Your task to perform on an android device: Open accessibility settings Image 0: 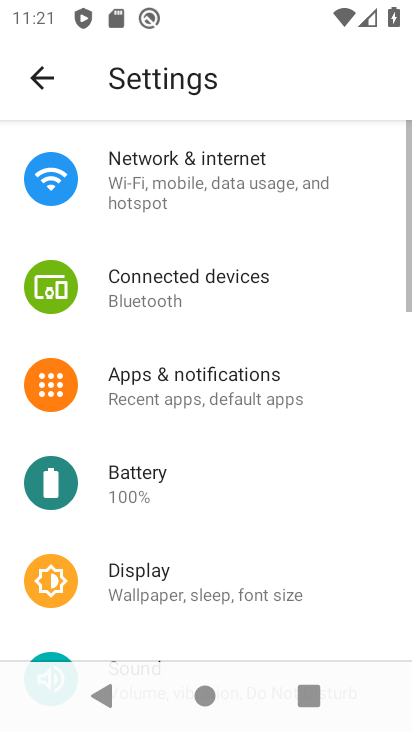
Step 0: press home button
Your task to perform on an android device: Open accessibility settings Image 1: 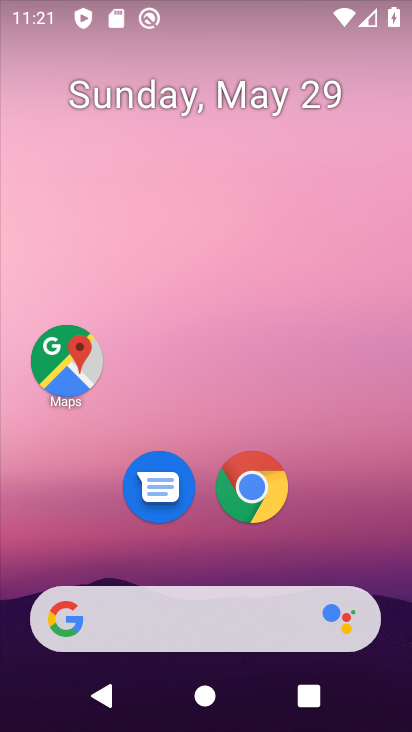
Step 1: drag from (225, 719) to (226, 132)
Your task to perform on an android device: Open accessibility settings Image 2: 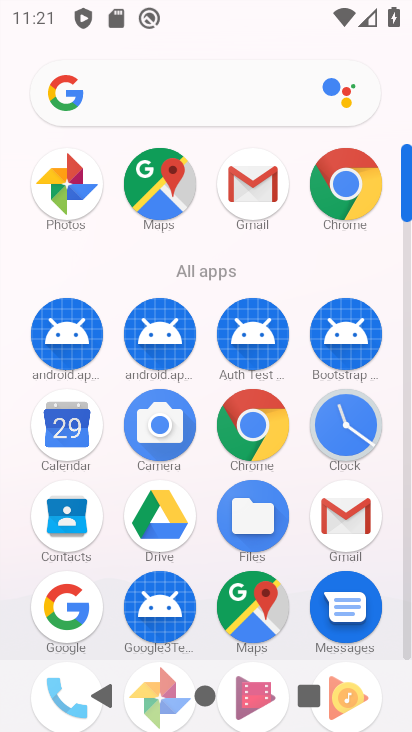
Step 2: drag from (202, 647) to (204, 264)
Your task to perform on an android device: Open accessibility settings Image 3: 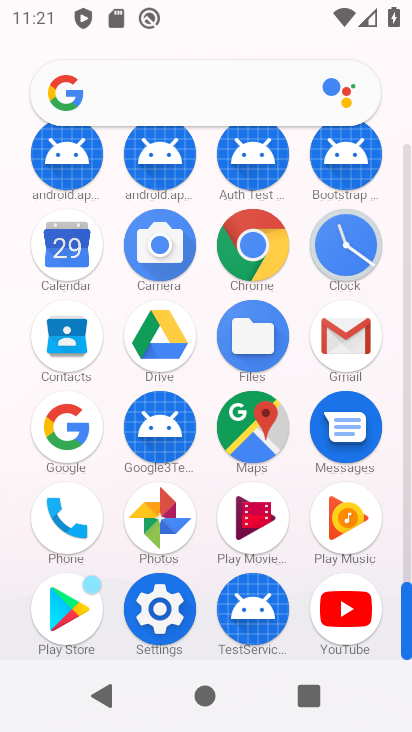
Step 3: click (170, 604)
Your task to perform on an android device: Open accessibility settings Image 4: 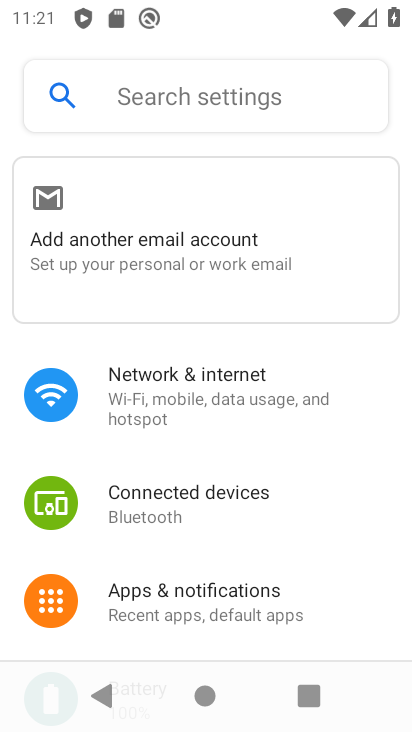
Step 4: drag from (161, 642) to (158, 261)
Your task to perform on an android device: Open accessibility settings Image 5: 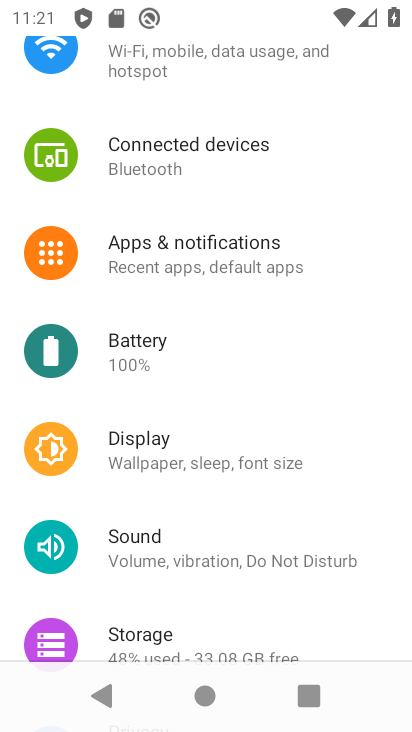
Step 5: drag from (194, 641) to (186, 217)
Your task to perform on an android device: Open accessibility settings Image 6: 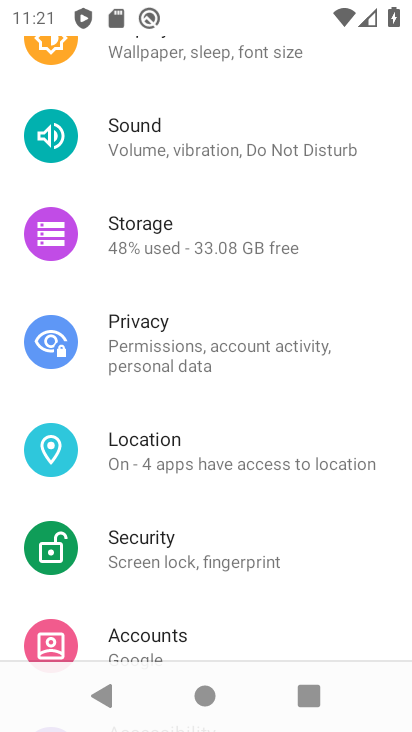
Step 6: drag from (151, 626) to (156, 194)
Your task to perform on an android device: Open accessibility settings Image 7: 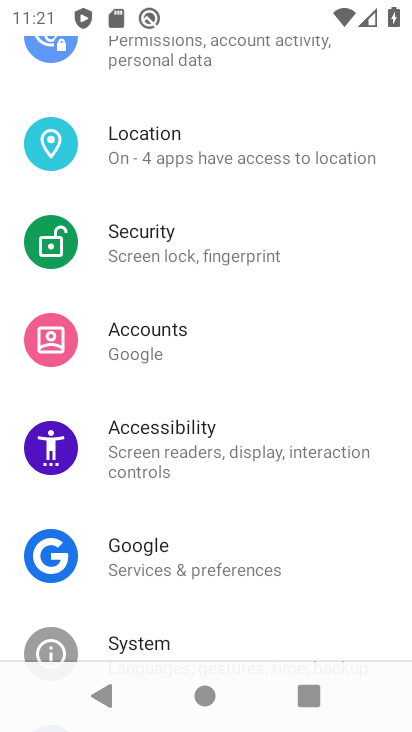
Step 7: click (159, 440)
Your task to perform on an android device: Open accessibility settings Image 8: 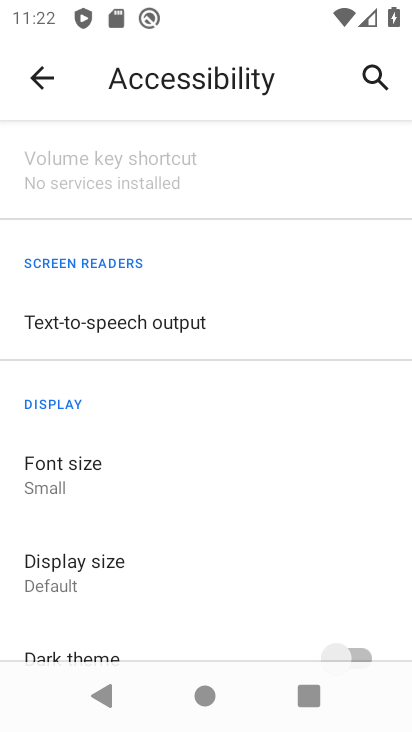
Step 8: task complete